Your task to perform on an android device: open app "Chime – Mobile Banking" Image 0: 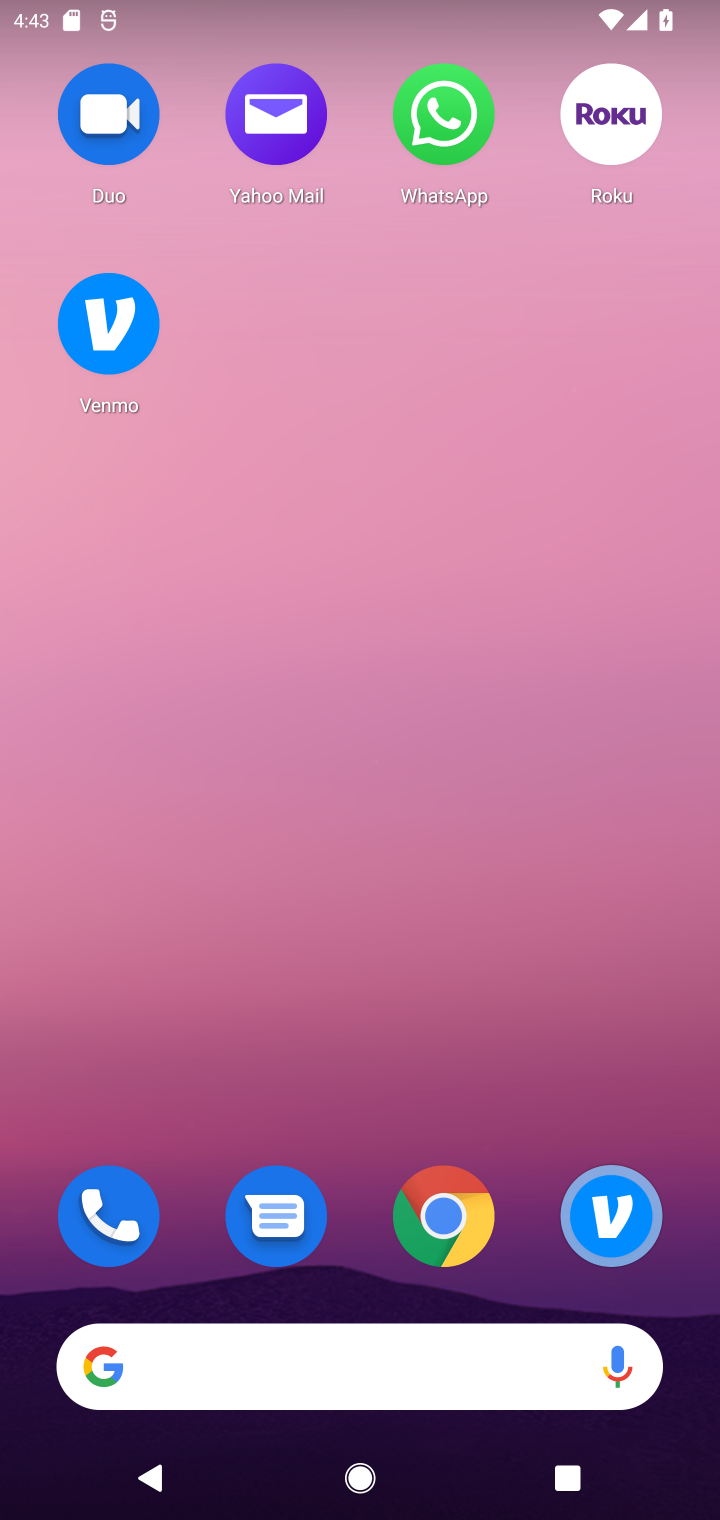
Step 0: drag from (349, 1075) to (430, 220)
Your task to perform on an android device: open app "Chime – Mobile Banking" Image 1: 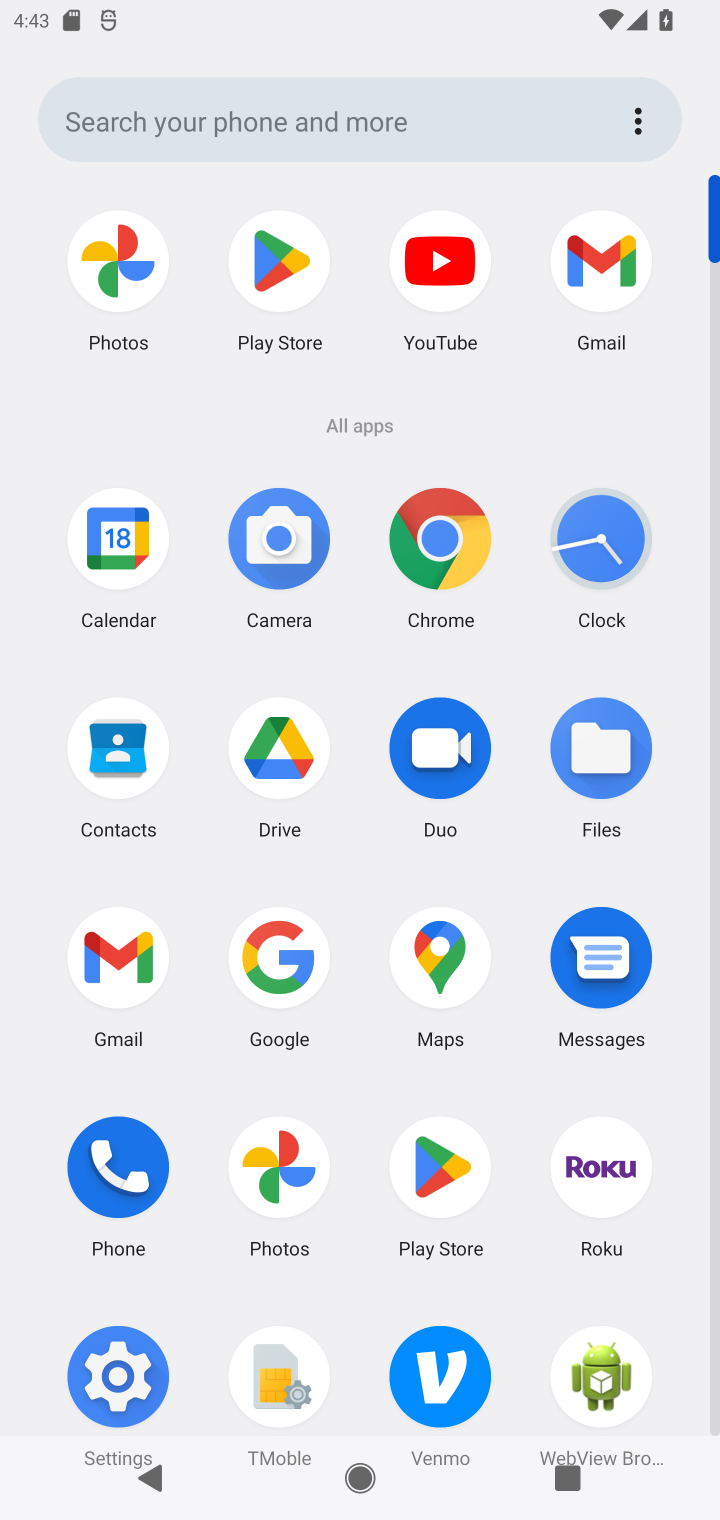
Step 1: click (269, 265)
Your task to perform on an android device: open app "Chime – Mobile Banking" Image 2: 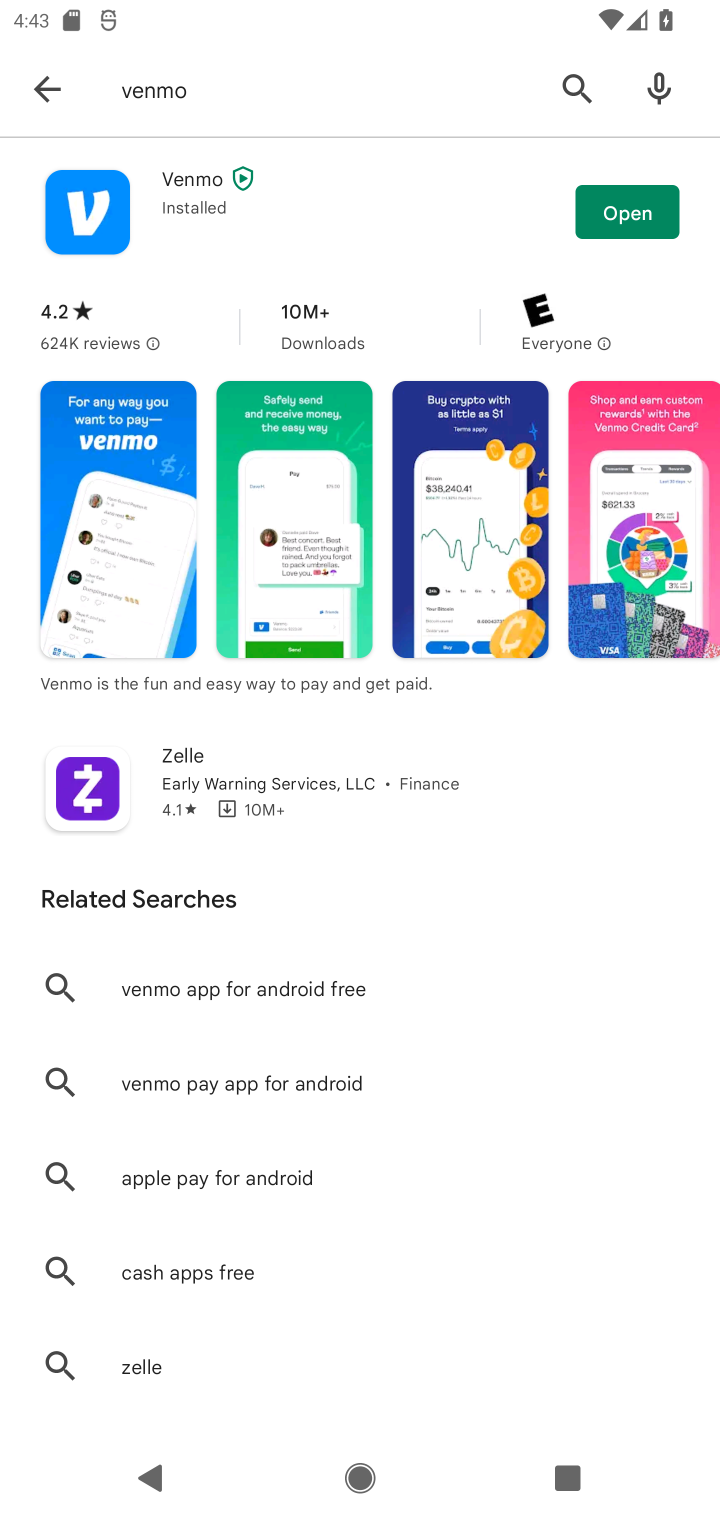
Step 2: click (585, 85)
Your task to perform on an android device: open app "Chime – Mobile Banking" Image 3: 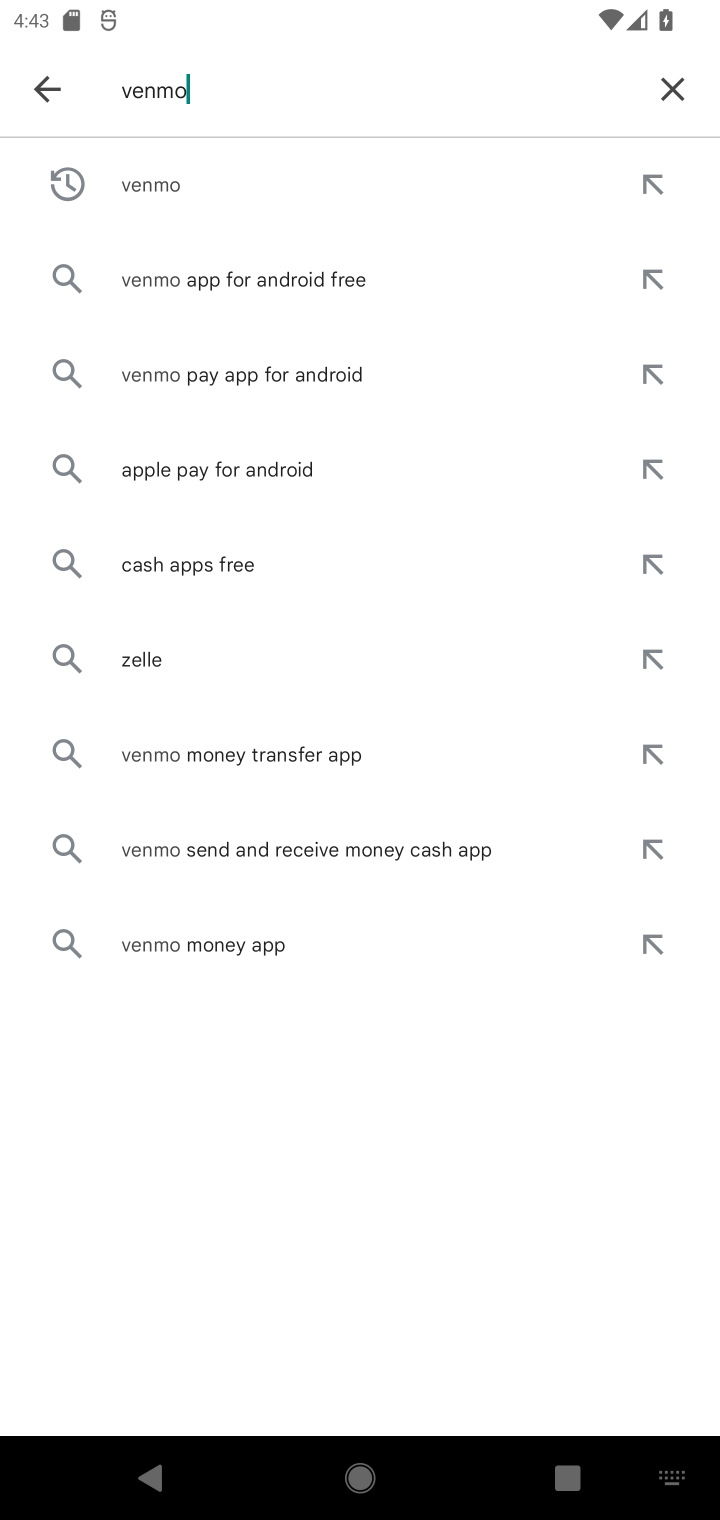
Step 3: click (669, 85)
Your task to perform on an android device: open app "Chime – Mobile Banking" Image 4: 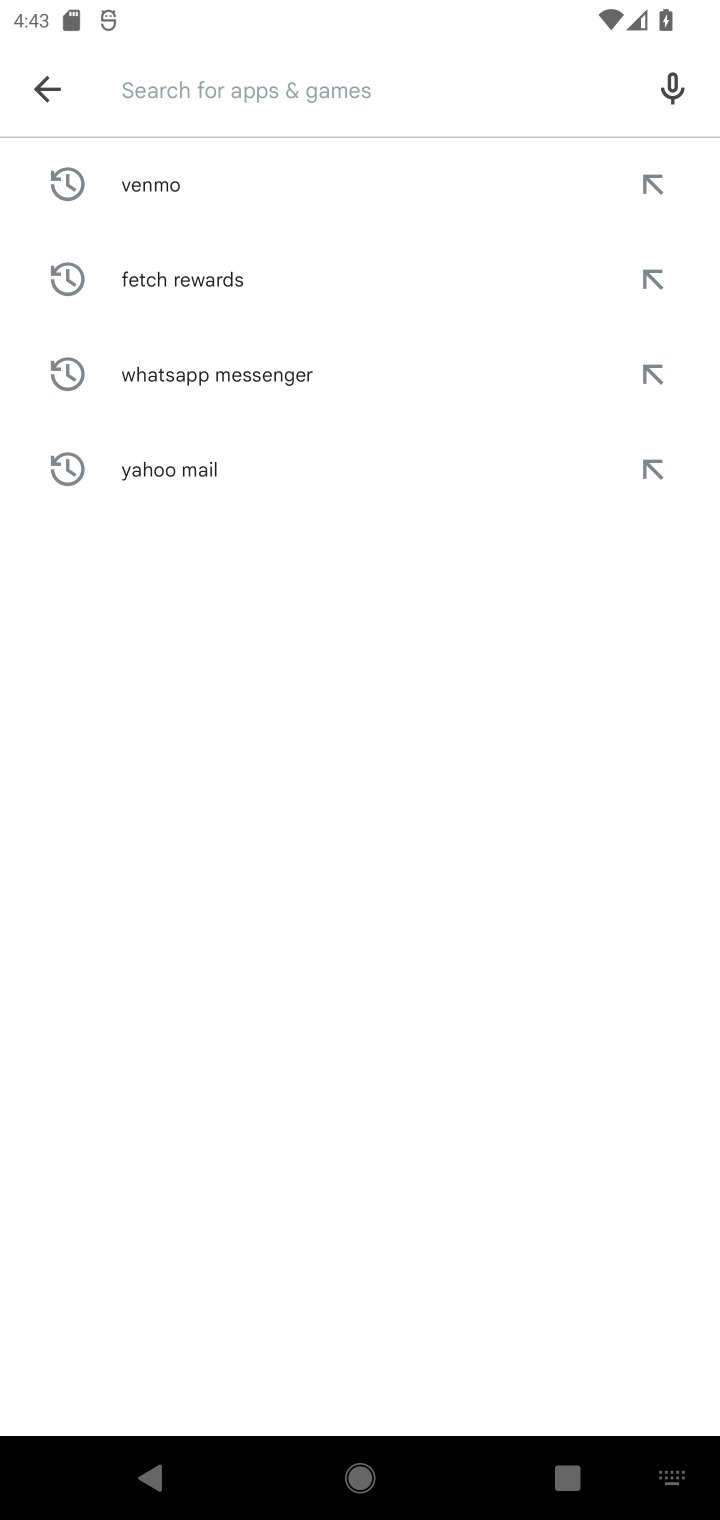
Step 4: type "Chime – Mobile Banking"
Your task to perform on an android device: open app "Chime – Mobile Banking" Image 5: 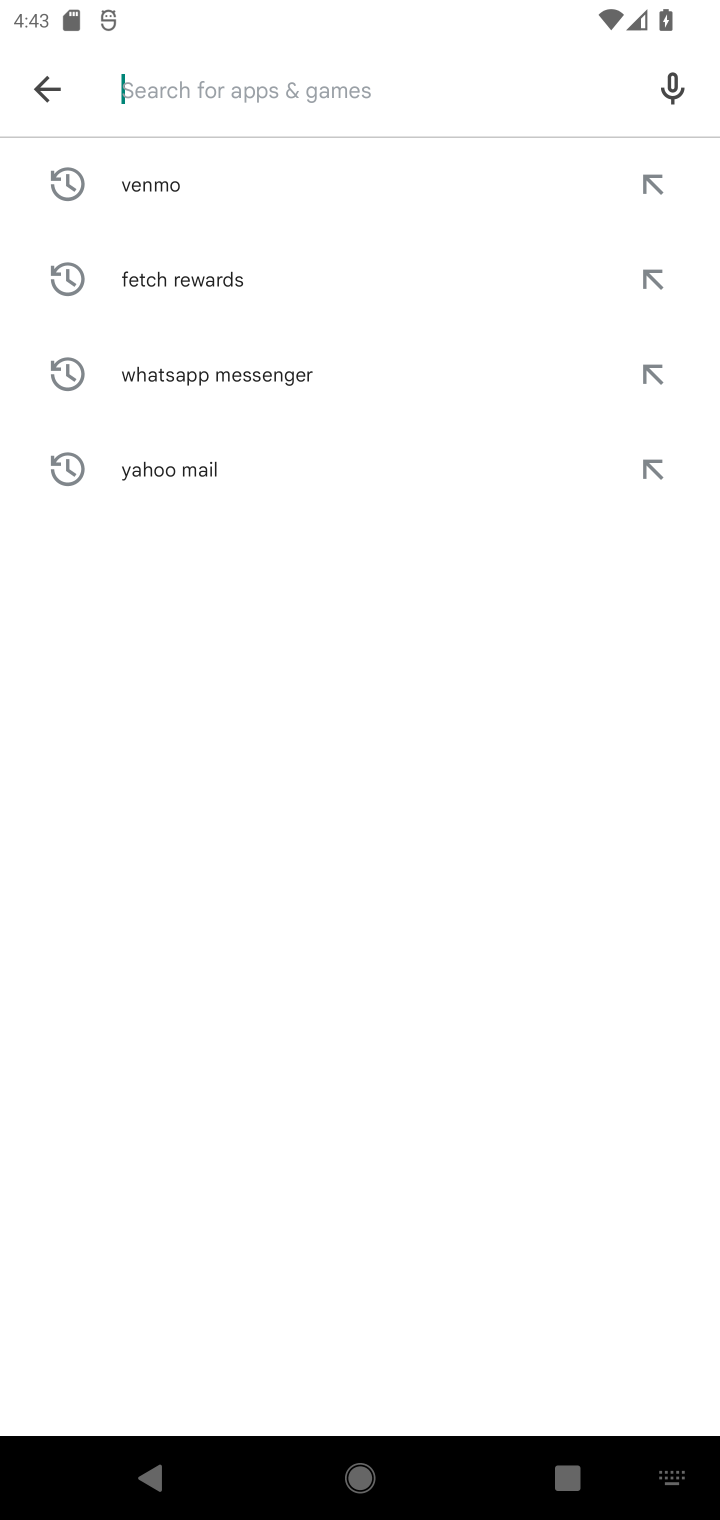
Step 5: type ""
Your task to perform on an android device: open app "Chime – Mobile Banking" Image 6: 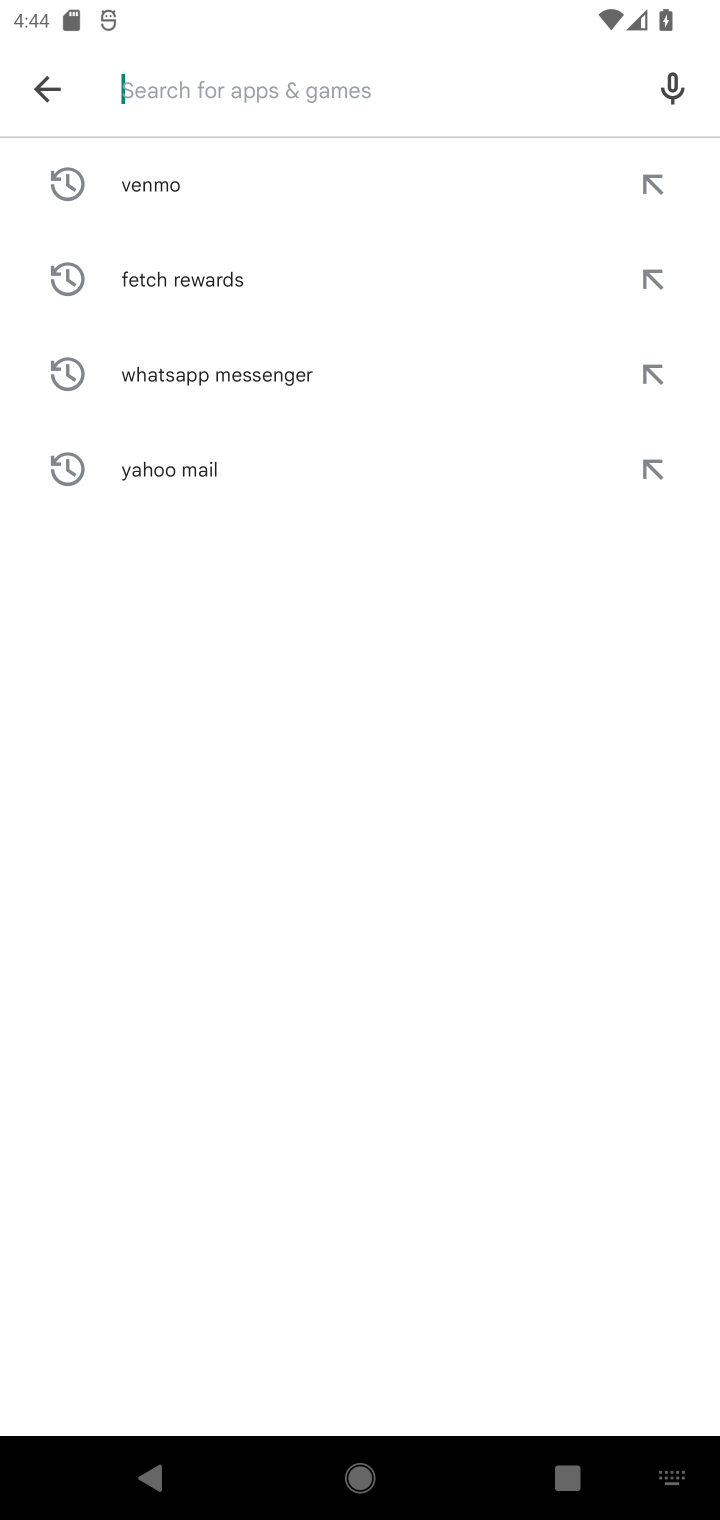
Step 6: type "Chime"
Your task to perform on an android device: open app "Chime – Mobile Banking" Image 7: 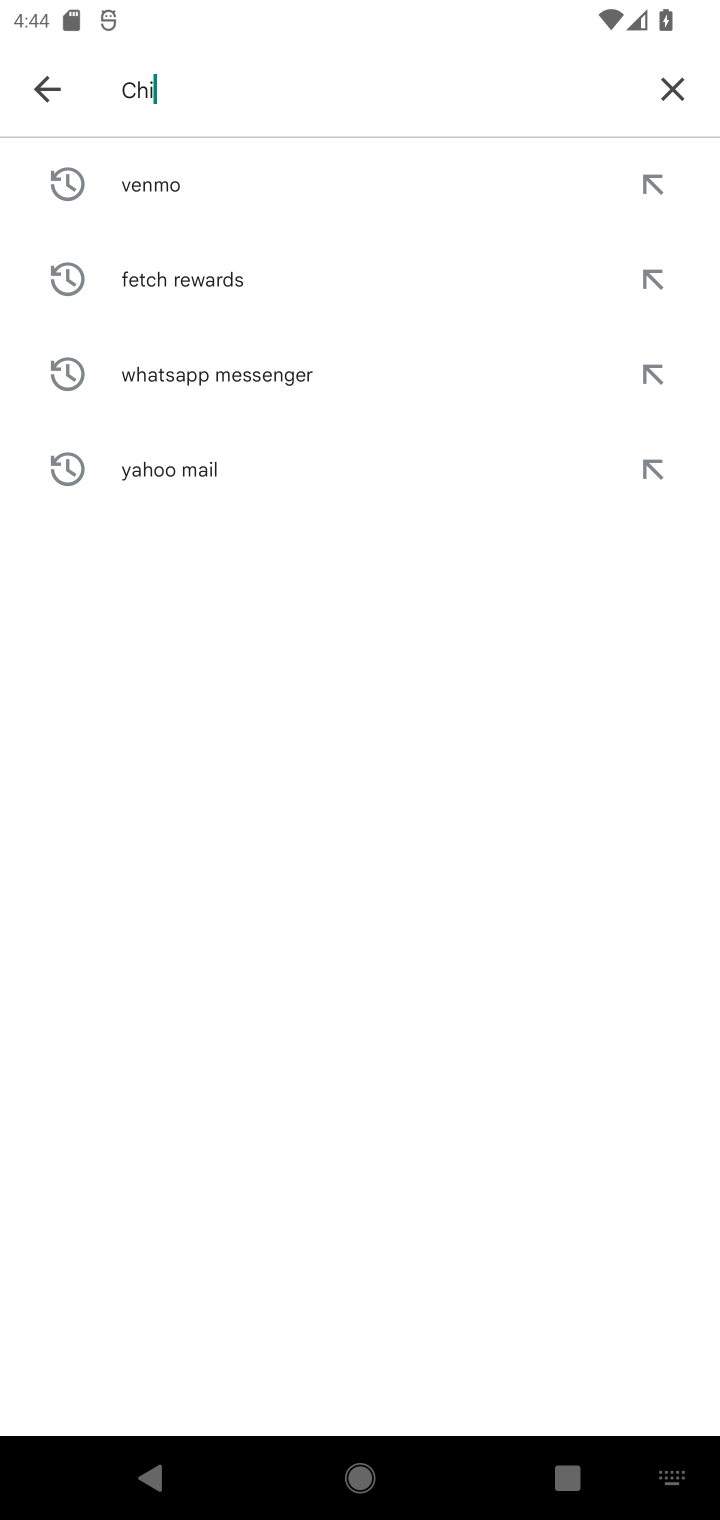
Step 7: type ""
Your task to perform on an android device: open app "Chime – Mobile Banking" Image 8: 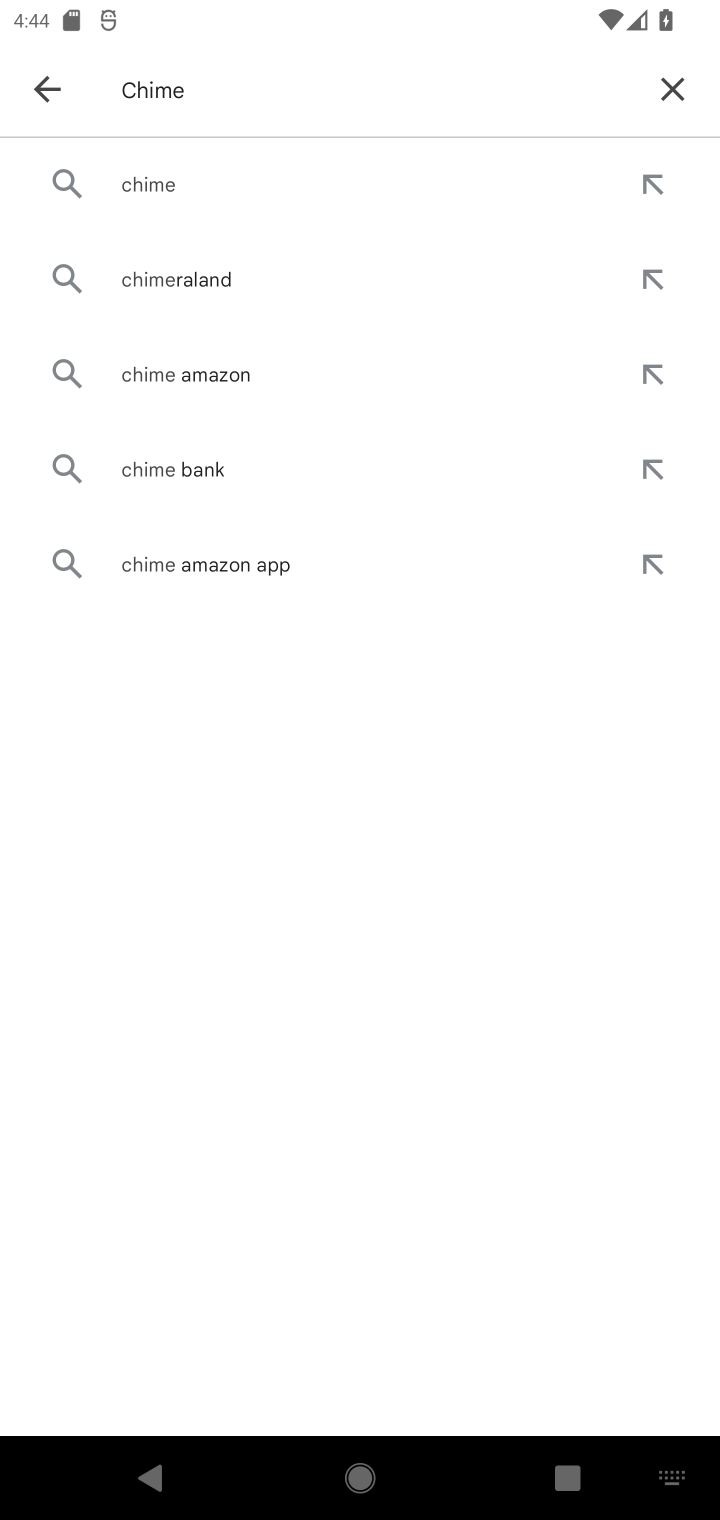
Step 8: click (193, 184)
Your task to perform on an android device: open app "Chime – Mobile Banking" Image 9: 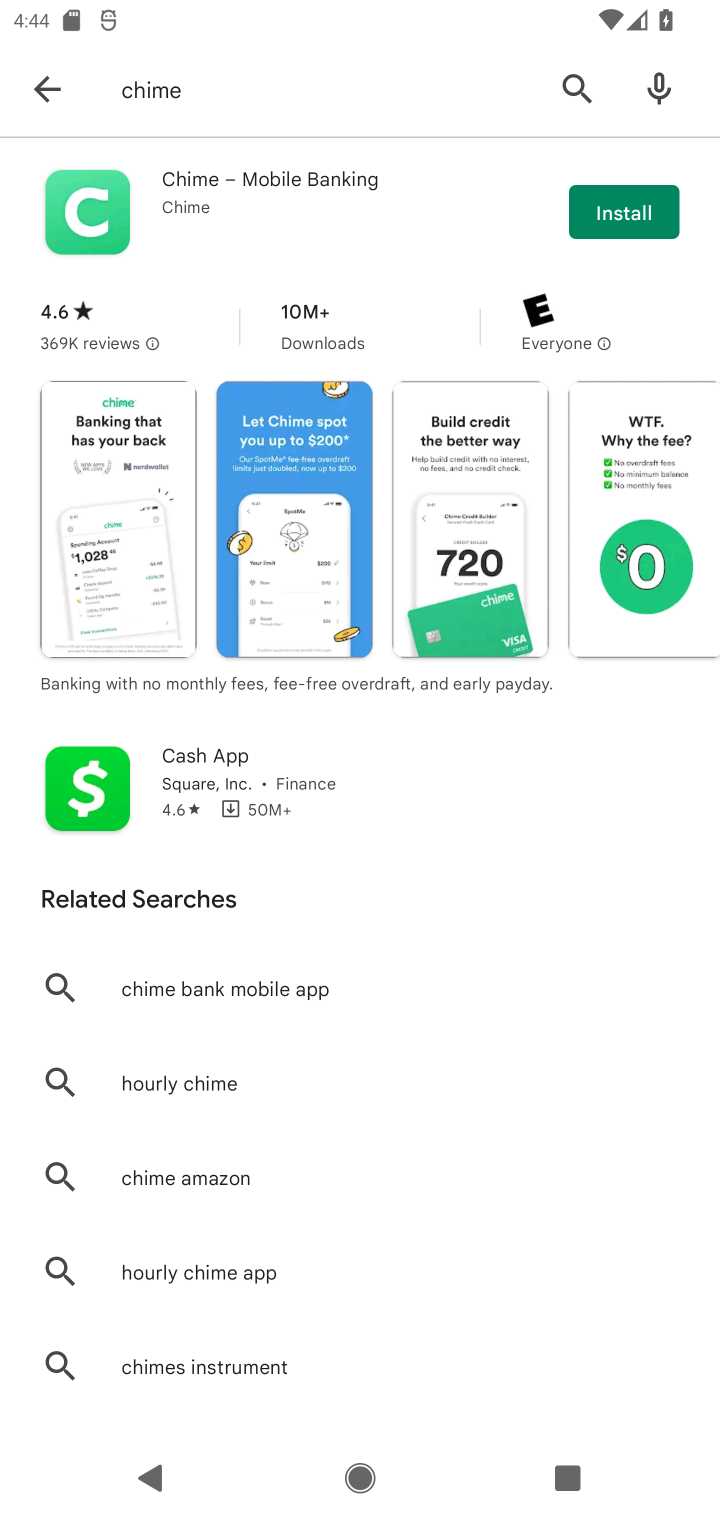
Step 9: task complete